Your task to perform on an android device: check google app version Image 0: 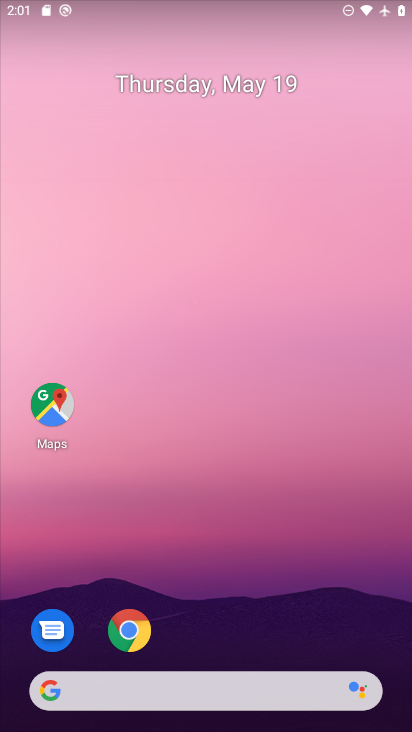
Step 0: drag from (186, 671) to (150, 20)
Your task to perform on an android device: check google app version Image 1: 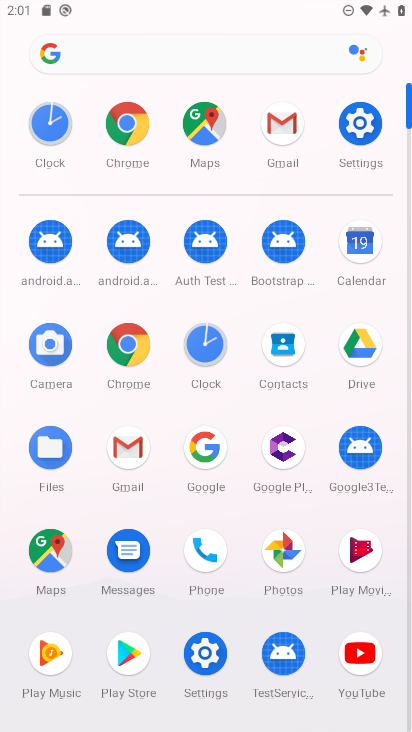
Step 1: click (196, 460)
Your task to perform on an android device: check google app version Image 2: 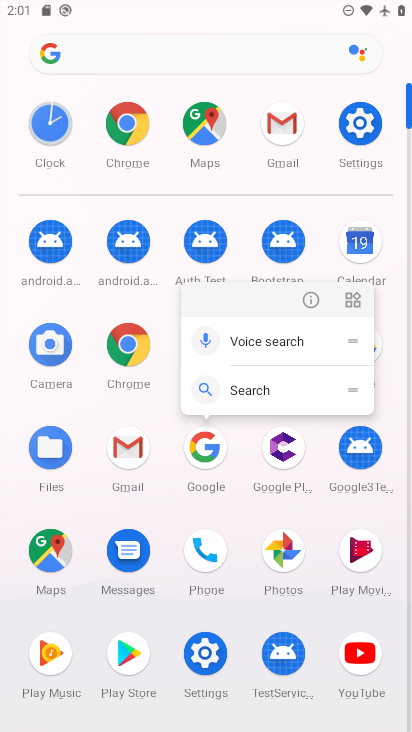
Step 2: click (306, 294)
Your task to perform on an android device: check google app version Image 3: 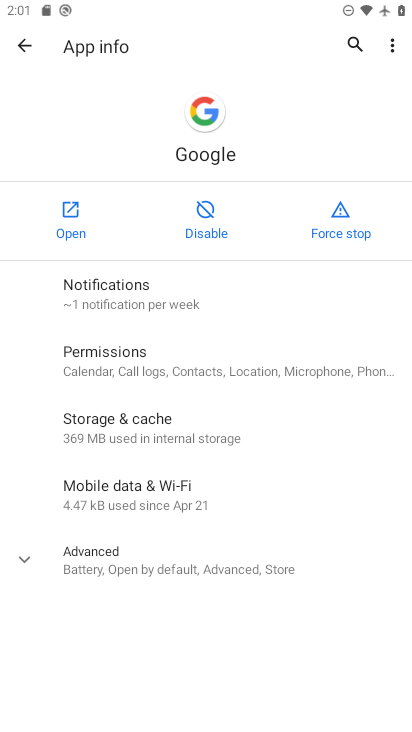
Step 3: click (88, 586)
Your task to perform on an android device: check google app version Image 4: 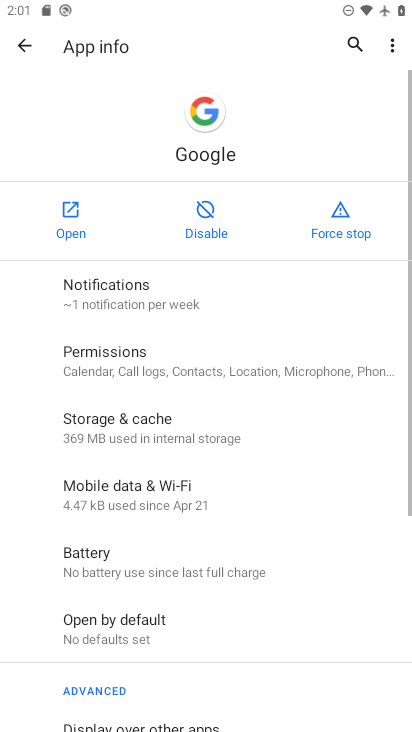
Step 4: task complete